Your task to perform on an android device: find snoozed emails in the gmail app Image 0: 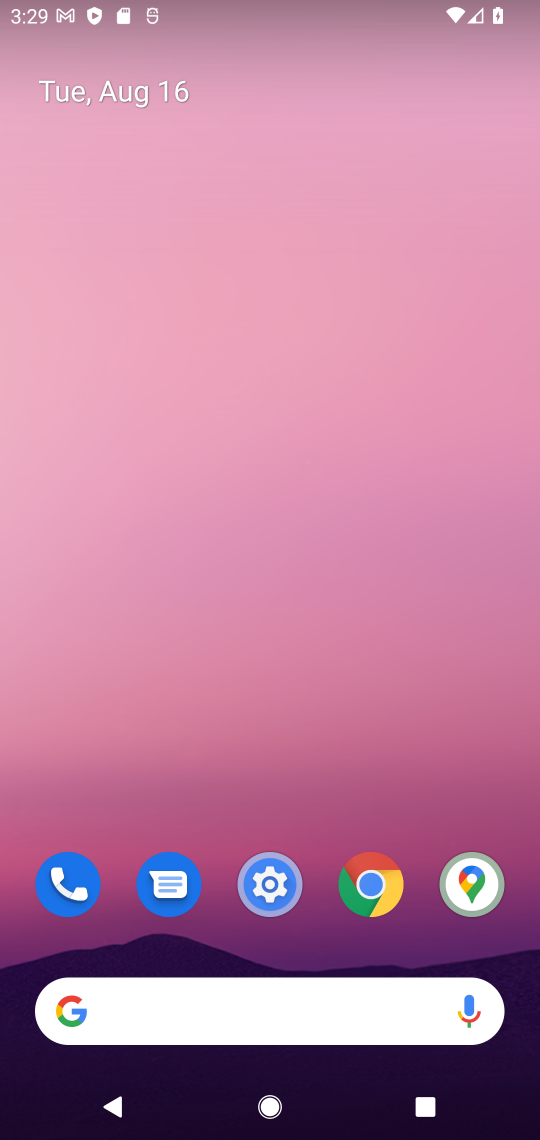
Step 0: drag from (260, 939) to (222, 312)
Your task to perform on an android device: find snoozed emails in the gmail app Image 1: 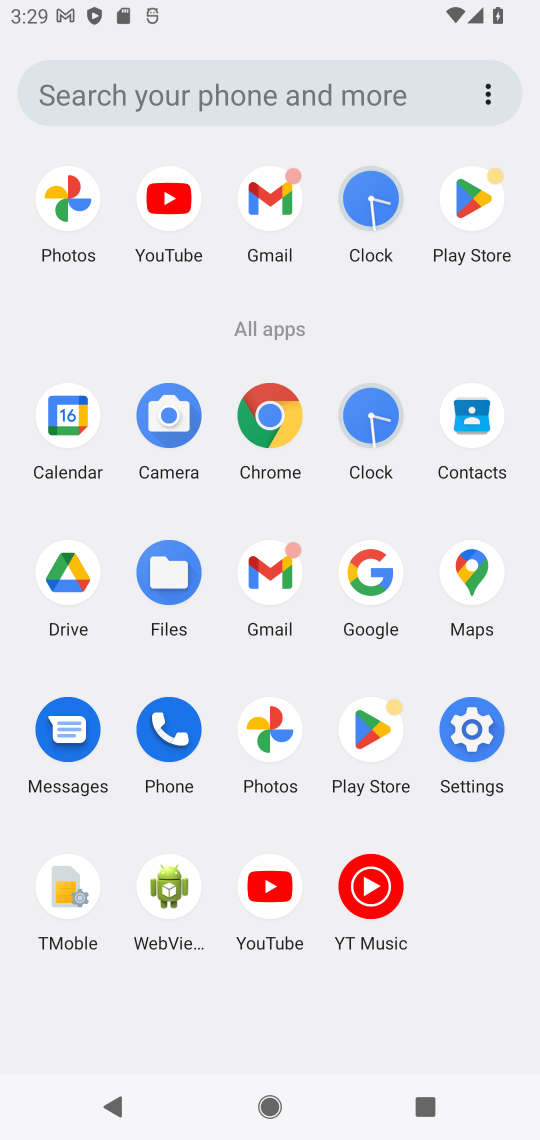
Step 1: click (288, 236)
Your task to perform on an android device: find snoozed emails in the gmail app Image 2: 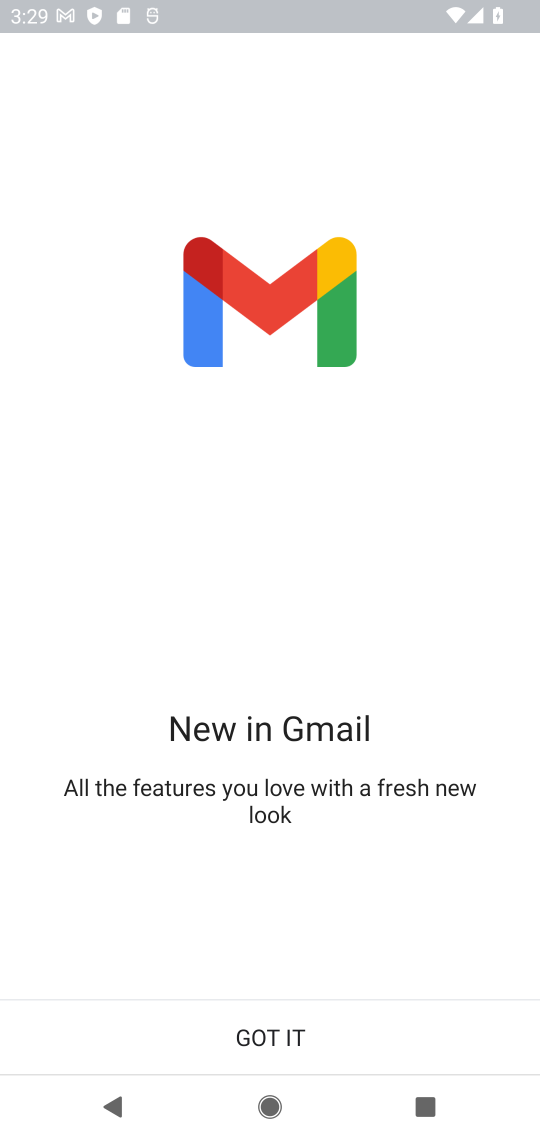
Step 2: click (354, 1028)
Your task to perform on an android device: find snoozed emails in the gmail app Image 3: 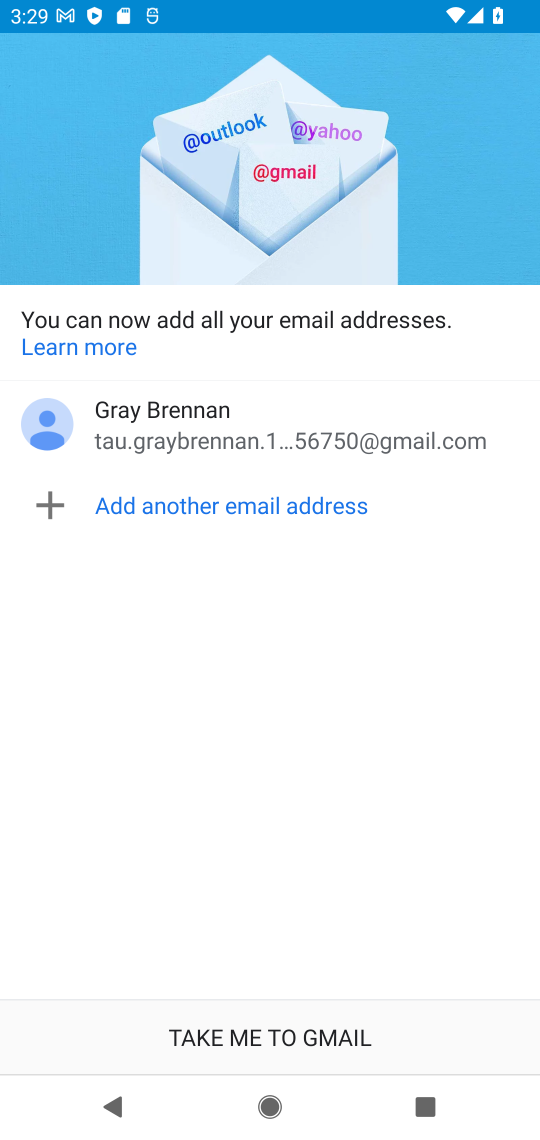
Step 3: click (393, 1028)
Your task to perform on an android device: find snoozed emails in the gmail app Image 4: 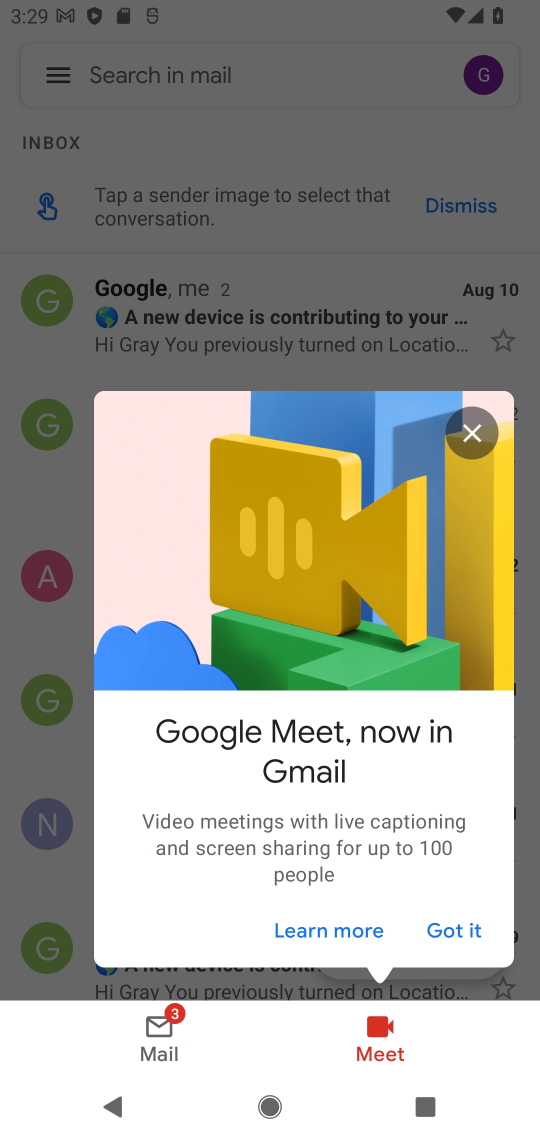
Step 4: click (432, 923)
Your task to perform on an android device: find snoozed emails in the gmail app Image 5: 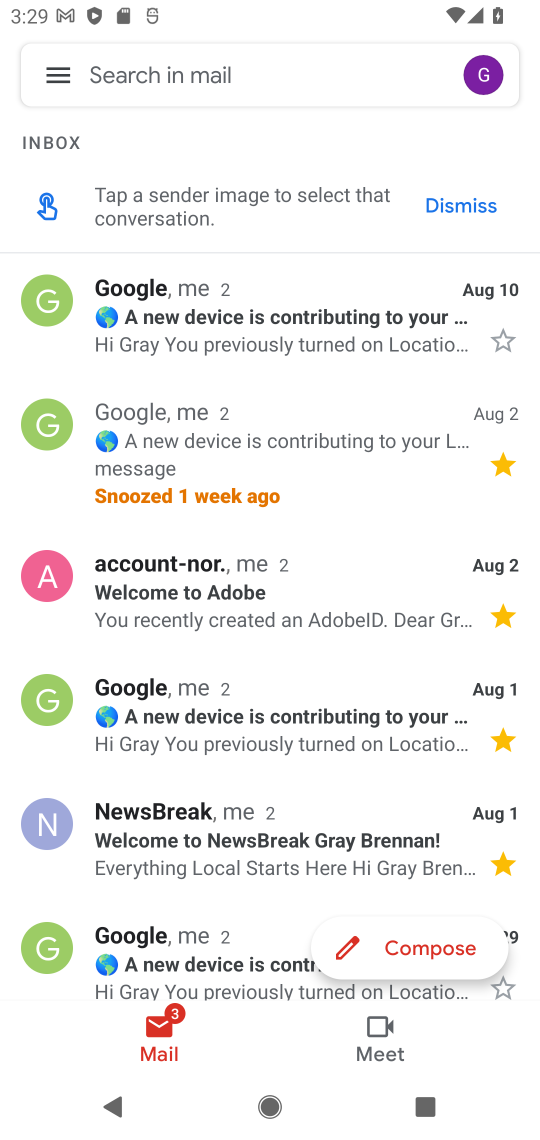
Step 5: click (57, 64)
Your task to perform on an android device: find snoozed emails in the gmail app Image 6: 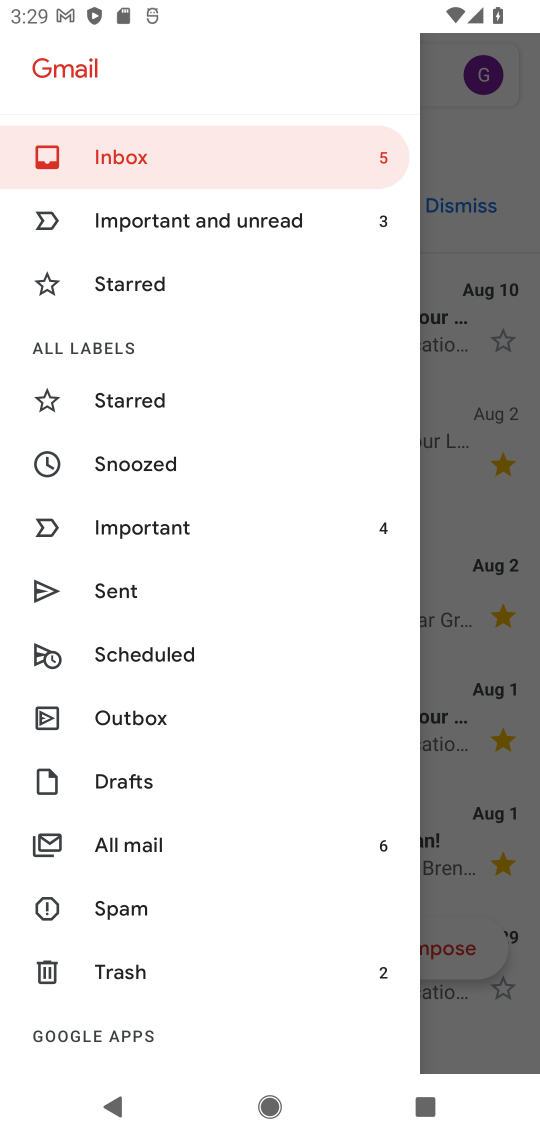
Step 6: click (156, 468)
Your task to perform on an android device: find snoozed emails in the gmail app Image 7: 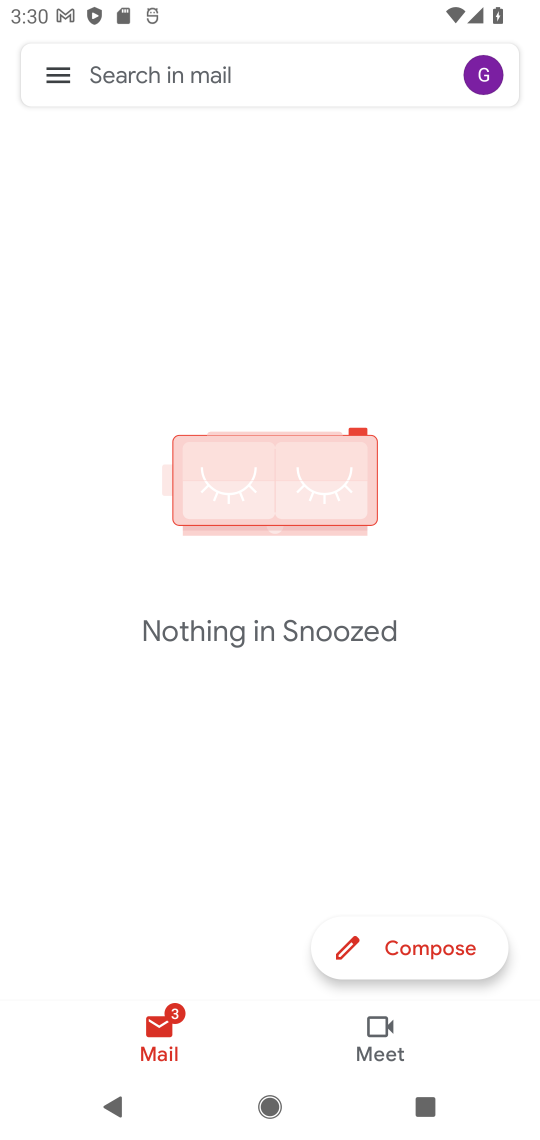
Step 7: task complete